Your task to perform on an android device: Go to calendar. Show me events next week Image 0: 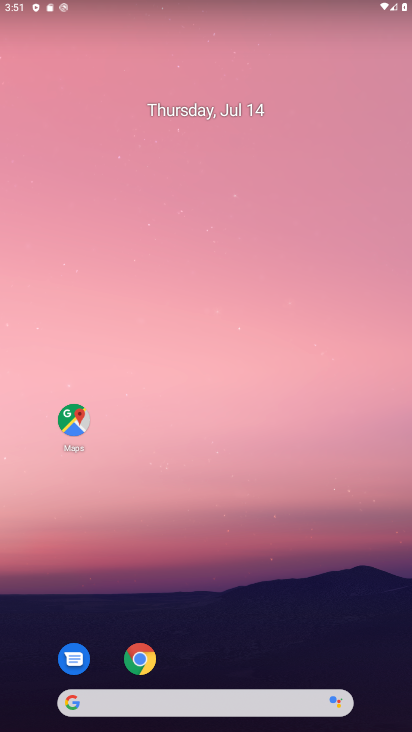
Step 0: click (21, 55)
Your task to perform on an android device: Go to calendar. Show me events next week Image 1: 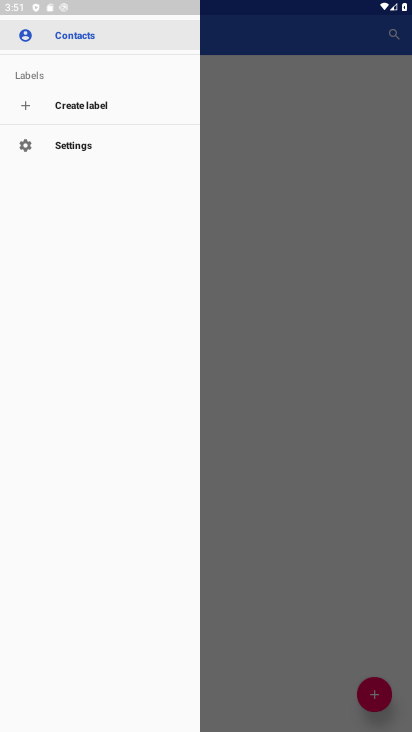
Step 1: press back button
Your task to perform on an android device: Go to calendar. Show me events next week Image 2: 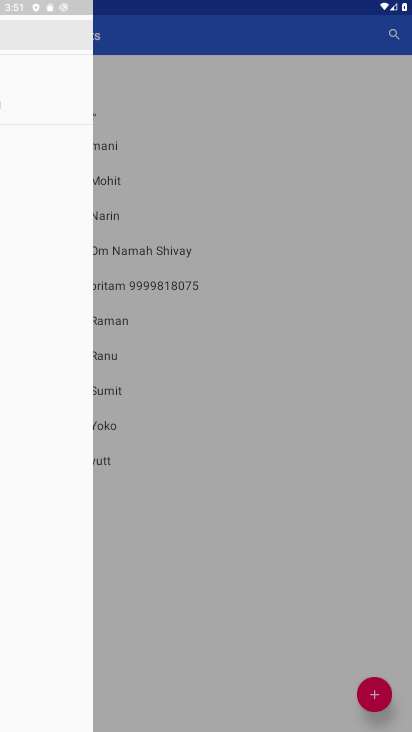
Step 2: press back button
Your task to perform on an android device: Go to calendar. Show me events next week Image 3: 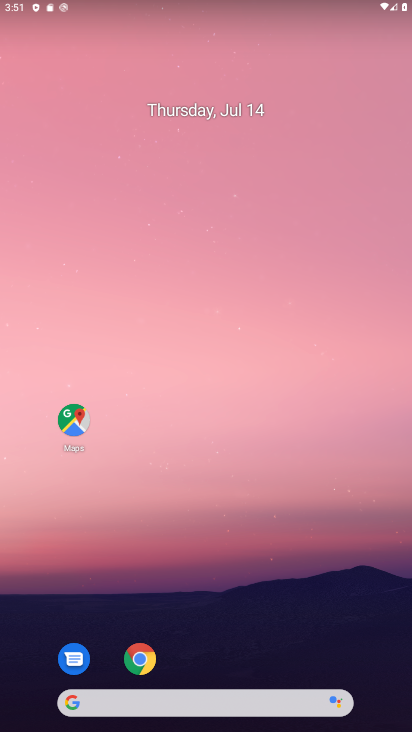
Step 3: drag from (231, 621) to (153, 114)
Your task to perform on an android device: Go to calendar. Show me events next week Image 4: 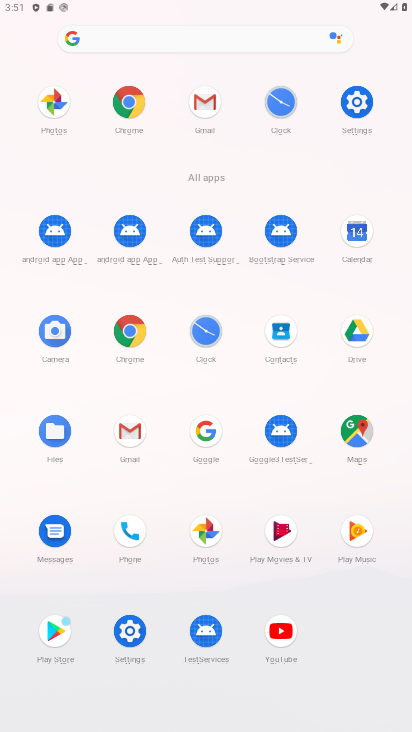
Step 4: click (347, 236)
Your task to perform on an android device: Go to calendar. Show me events next week Image 5: 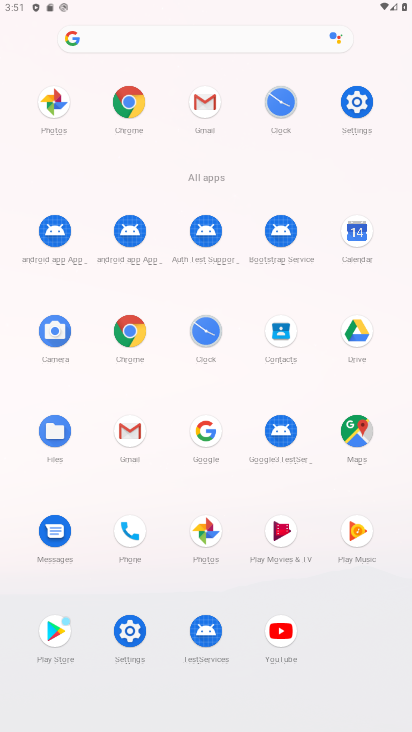
Step 5: click (349, 236)
Your task to perform on an android device: Go to calendar. Show me events next week Image 6: 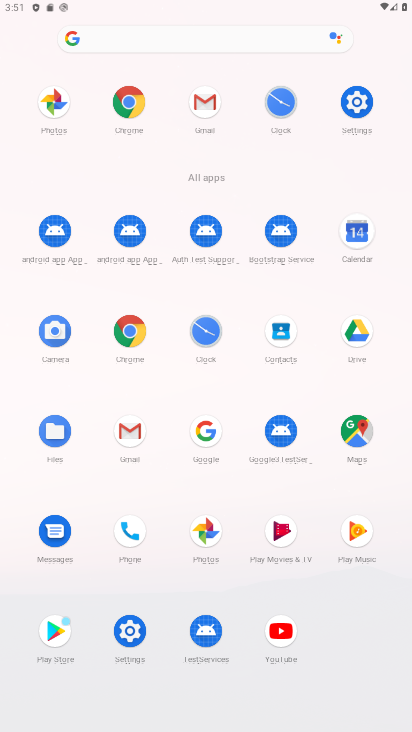
Step 6: click (351, 234)
Your task to perform on an android device: Go to calendar. Show me events next week Image 7: 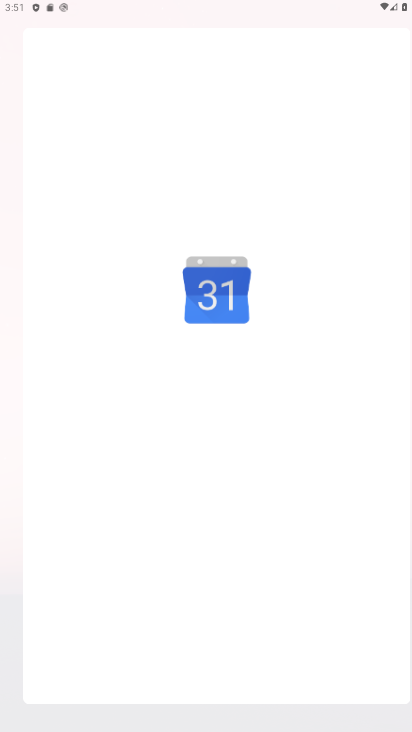
Step 7: click (353, 233)
Your task to perform on an android device: Go to calendar. Show me events next week Image 8: 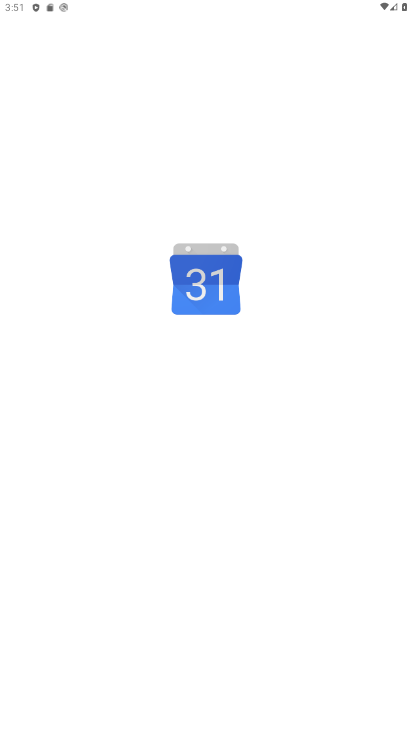
Step 8: click (353, 233)
Your task to perform on an android device: Go to calendar. Show me events next week Image 9: 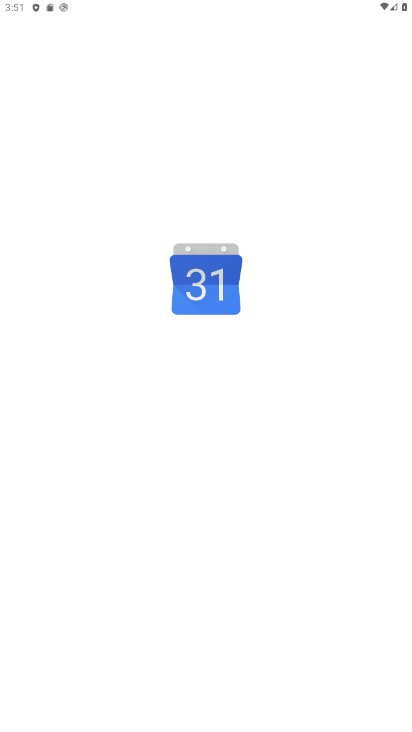
Step 9: click (354, 234)
Your task to perform on an android device: Go to calendar. Show me events next week Image 10: 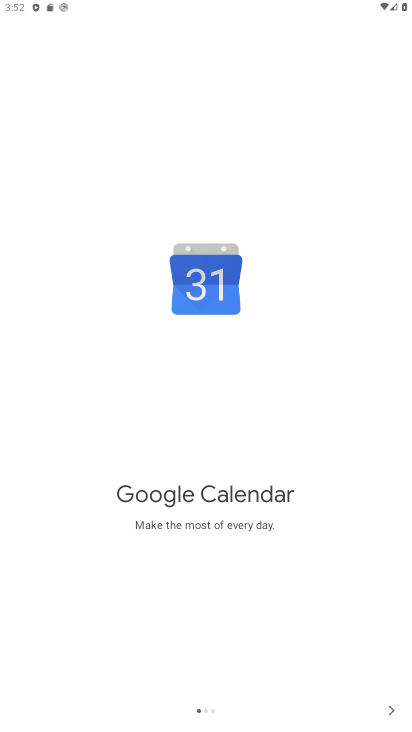
Step 10: click (388, 710)
Your task to perform on an android device: Go to calendar. Show me events next week Image 11: 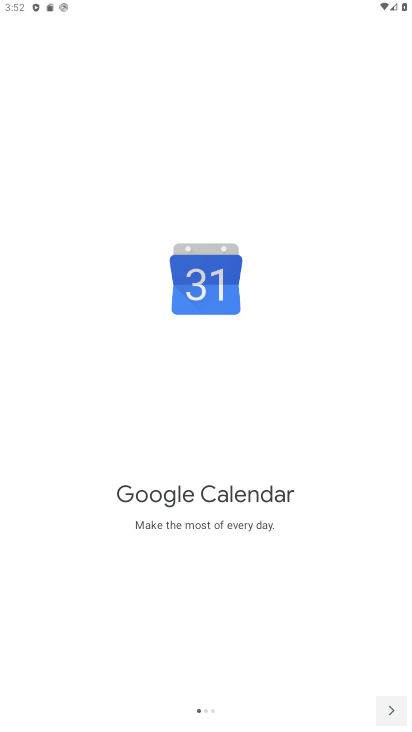
Step 11: click (388, 710)
Your task to perform on an android device: Go to calendar. Show me events next week Image 12: 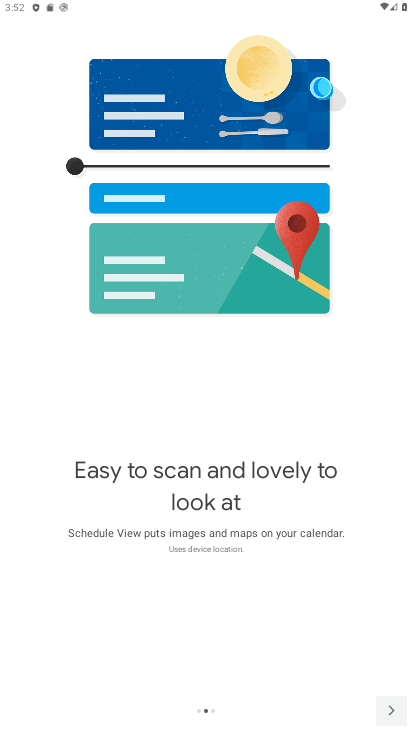
Step 12: click (388, 710)
Your task to perform on an android device: Go to calendar. Show me events next week Image 13: 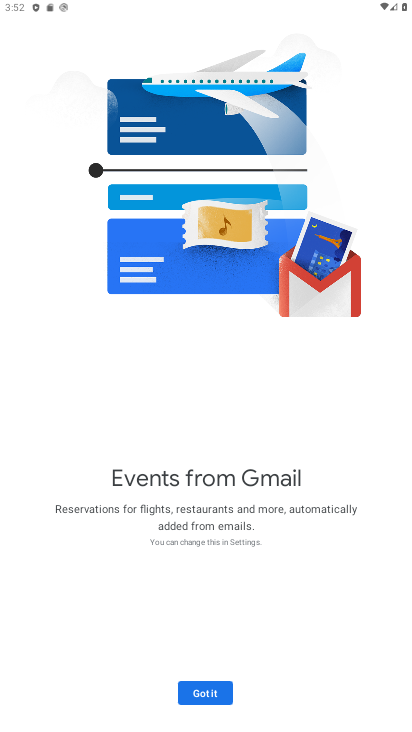
Step 13: click (373, 697)
Your task to perform on an android device: Go to calendar. Show me events next week Image 14: 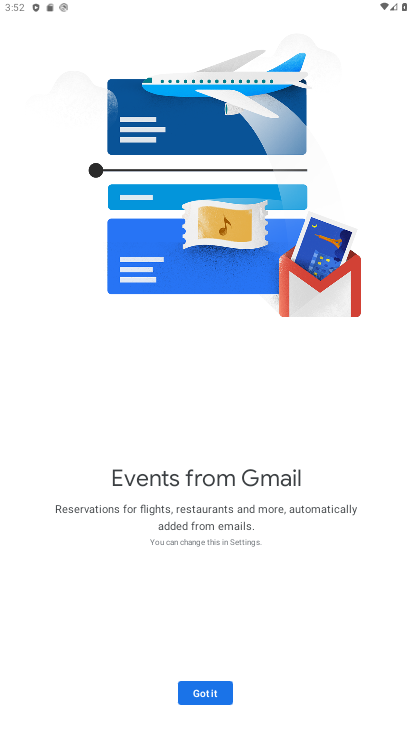
Step 14: click (201, 694)
Your task to perform on an android device: Go to calendar. Show me events next week Image 15: 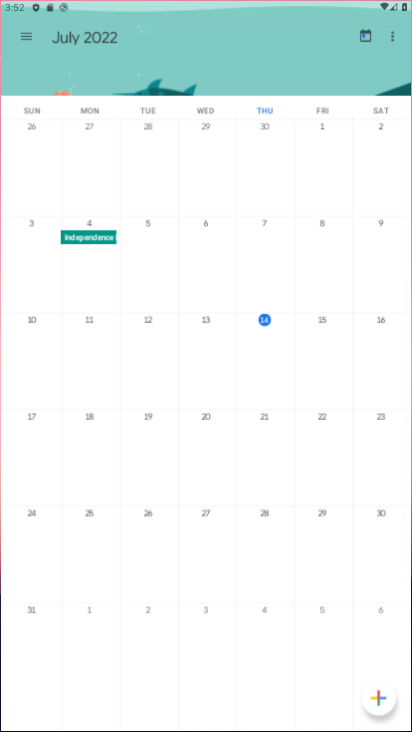
Step 15: click (206, 692)
Your task to perform on an android device: Go to calendar. Show me events next week Image 16: 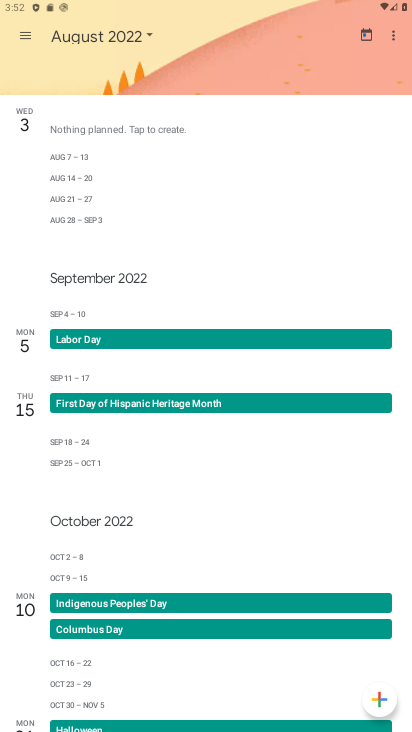
Step 16: click (320, 316)
Your task to perform on an android device: Go to calendar. Show me events next week Image 17: 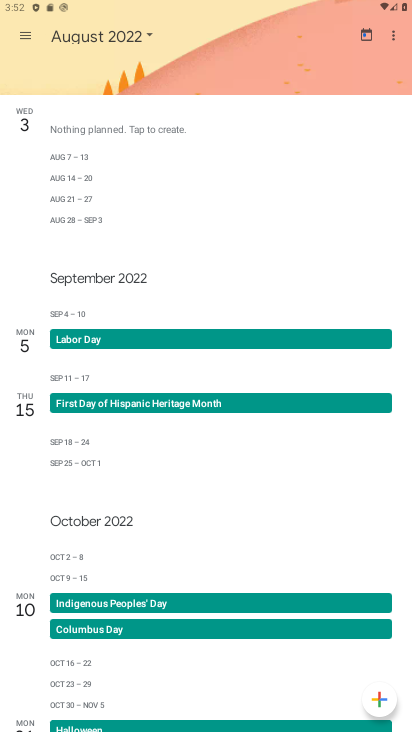
Step 17: task complete